Your task to perform on an android device: move an email to a new category in the gmail app Image 0: 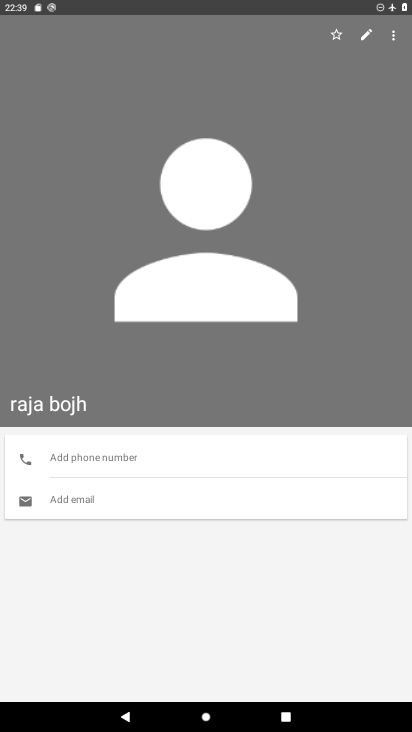
Step 0: press home button
Your task to perform on an android device: move an email to a new category in the gmail app Image 1: 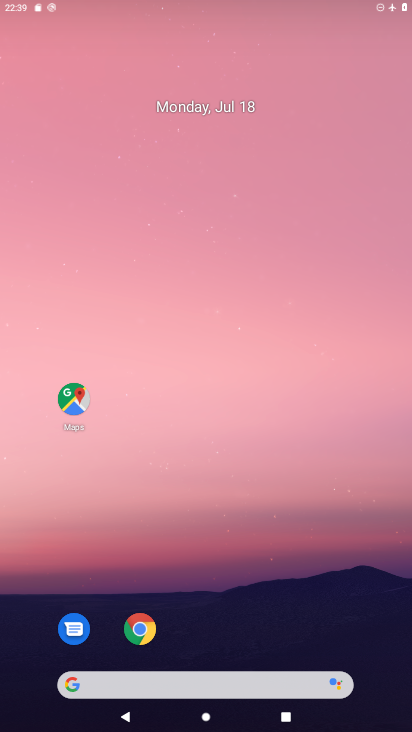
Step 1: drag from (280, 546) to (227, 61)
Your task to perform on an android device: move an email to a new category in the gmail app Image 2: 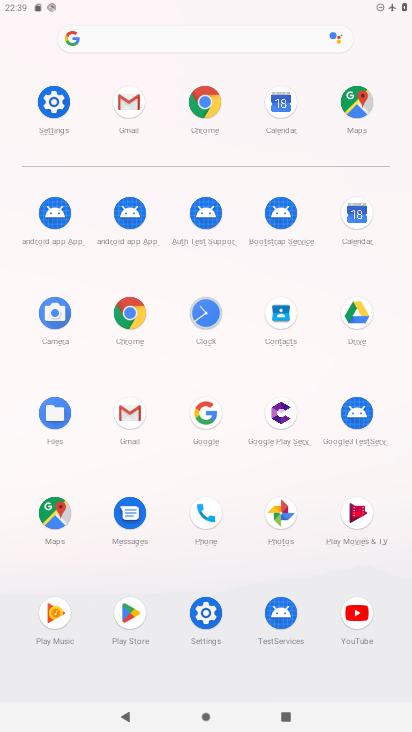
Step 2: click (132, 107)
Your task to perform on an android device: move an email to a new category in the gmail app Image 3: 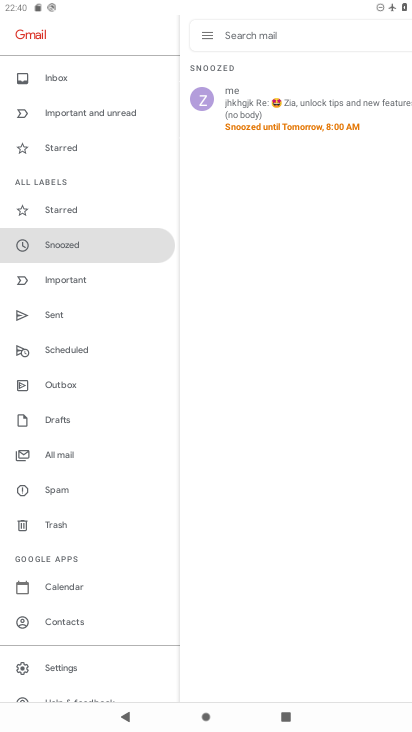
Step 3: click (68, 82)
Your task to perform on an android device: move an email to a new category in the gmail app Image 4: 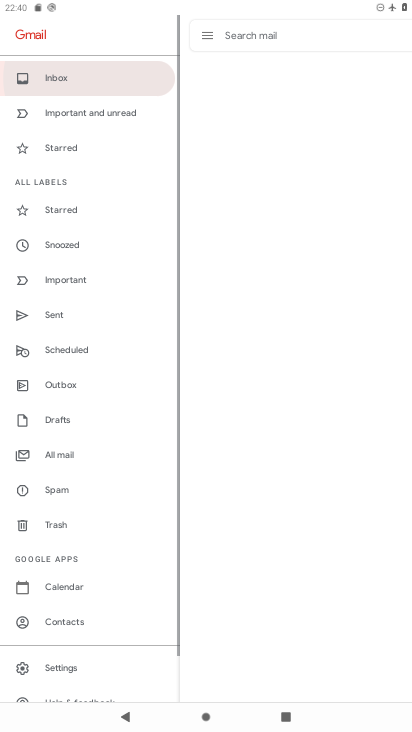
Step 4: task complete